Your task to perform on an android device: Show me popular videos on Youtube Image 0: 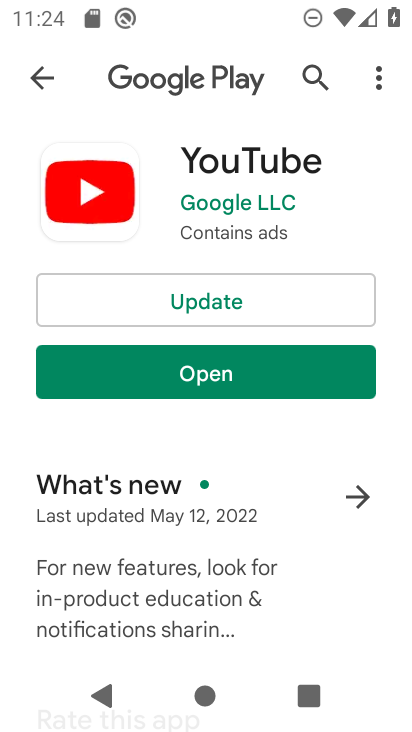
Step 0: press home button
Your task to perform on an android device: Show me popular videos on Youtube Image 1: 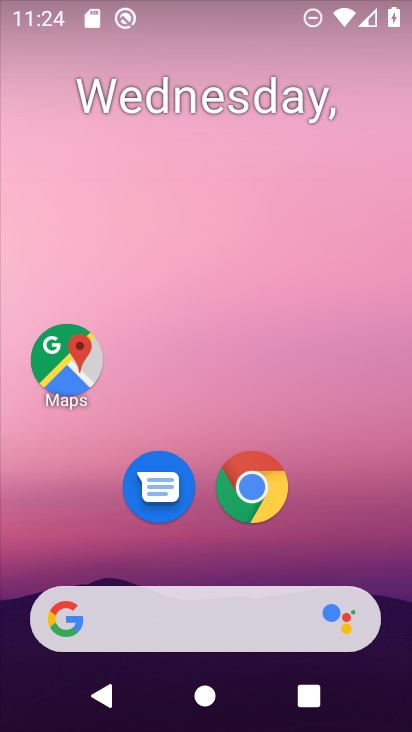
Step 1: drag from (339, 527) to (209, 159)
Your task to perform on an android device: Show me popular videos on Youtube Image 2: 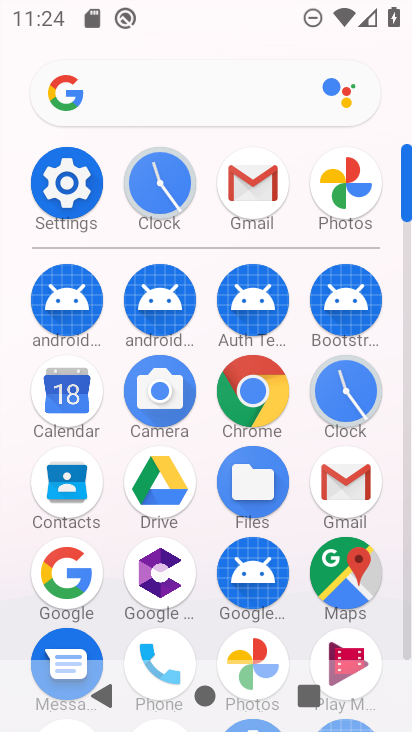
Step 2: drag from (206, 596) to (160, 207)
Your task to perform on an android device: Show me popular videos on Youtube Image 3: 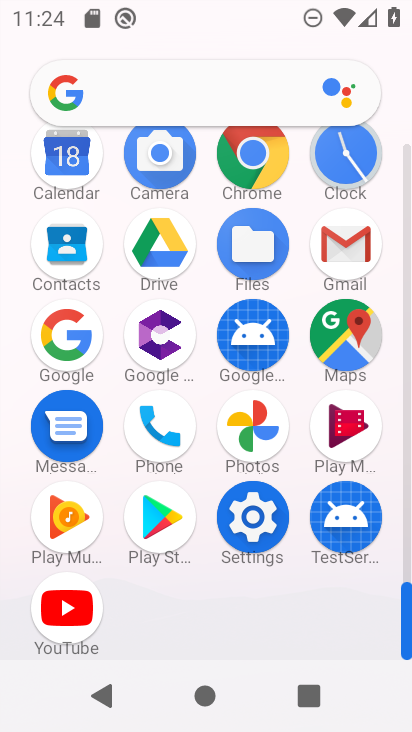
Step 3: click (62, 608)
Your task to perform on an android device: Show me popular videos on Youtube Image 4: 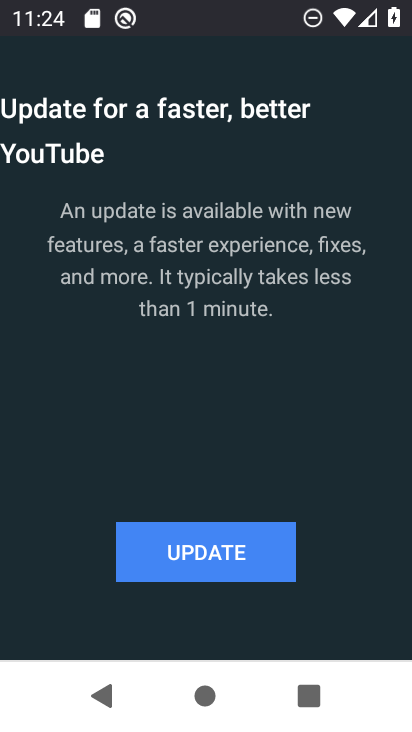
Step 4: click (198, 566)
Your task to perform on an android device: Show me popular videos on Youtube Image 5: 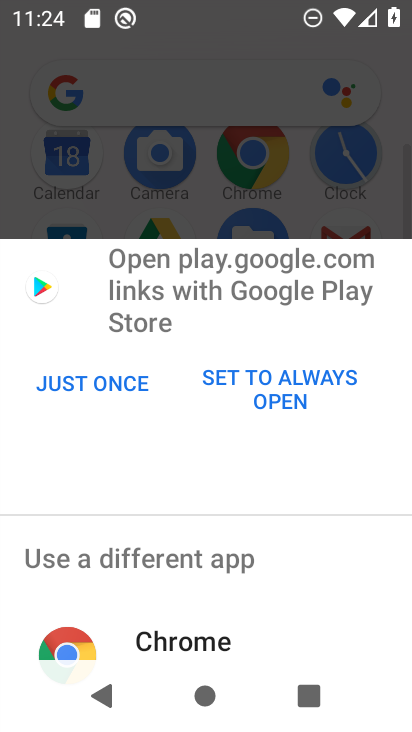
Step 5: click (199, 541)
Your task to perform on an android device: Show me popular videos on Youtube Image 6: 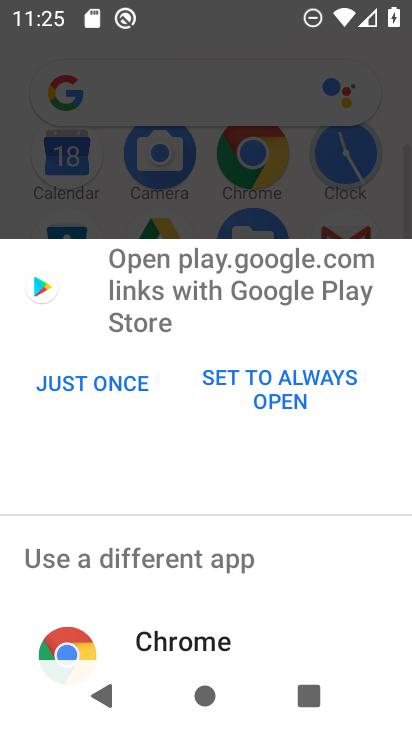
Step 6: drag from (176, 577) to (140, 296)
Your task to perform on an android device: Show me popular videos on Youtube Image 7: 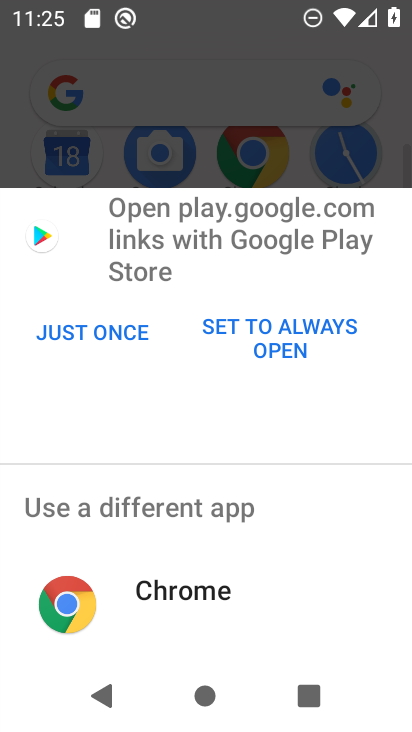
Step 7: click (99, 327)
Your task to perform on an android device: Show me popular videos on Youtube Image 8: 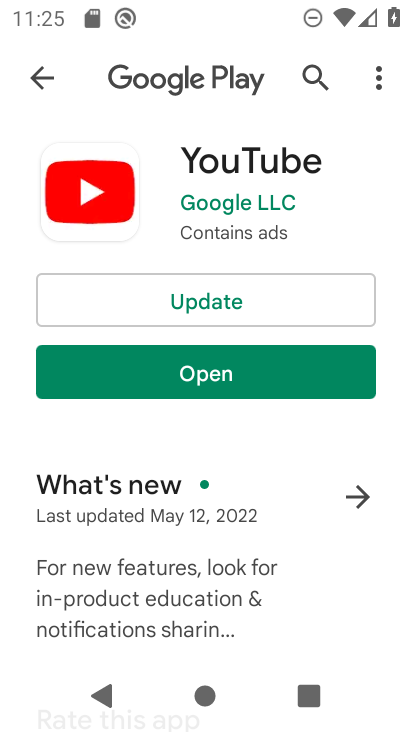
Step 8: click (218, 296)
Your task to perform on an android device: Show me popular videos on Youtube Image 9: 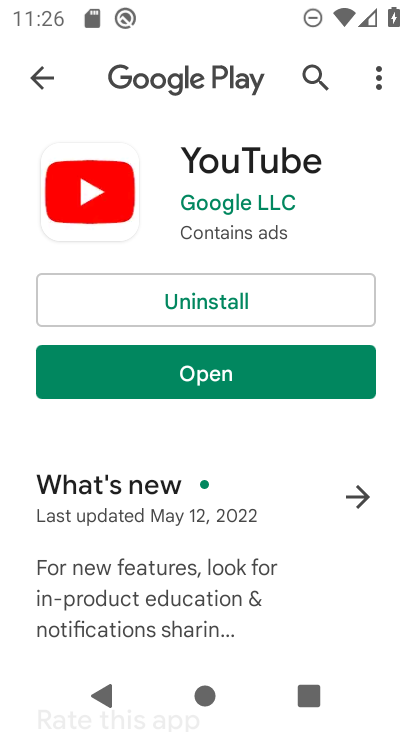
Step 9: click (228, 359)
Your task to perform on an android device: Show me popular videos on Youtube Image 10: 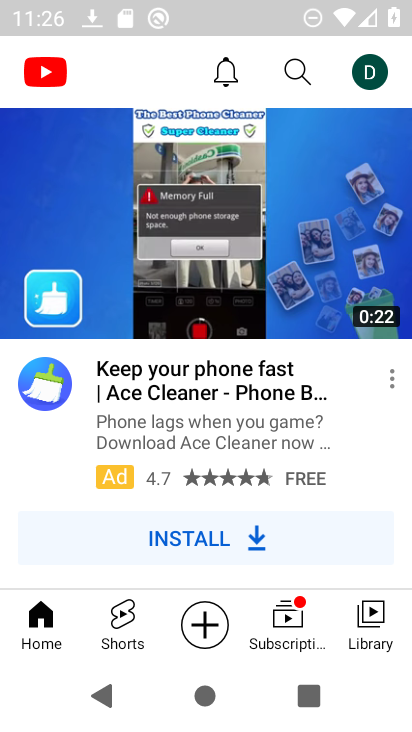
Step 10: click (111, 624)
Your task to perform on an android device: Show me popular videos on Youtube Image 11: 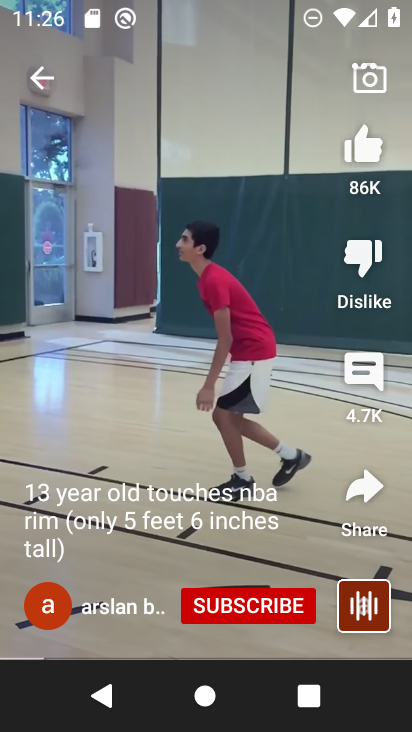
Step 11: task complete